Your task to perform on an android device: Search for "razer kraken" on ebay.com, select the first entry, add it to the cart, then select checkout. Image 0: 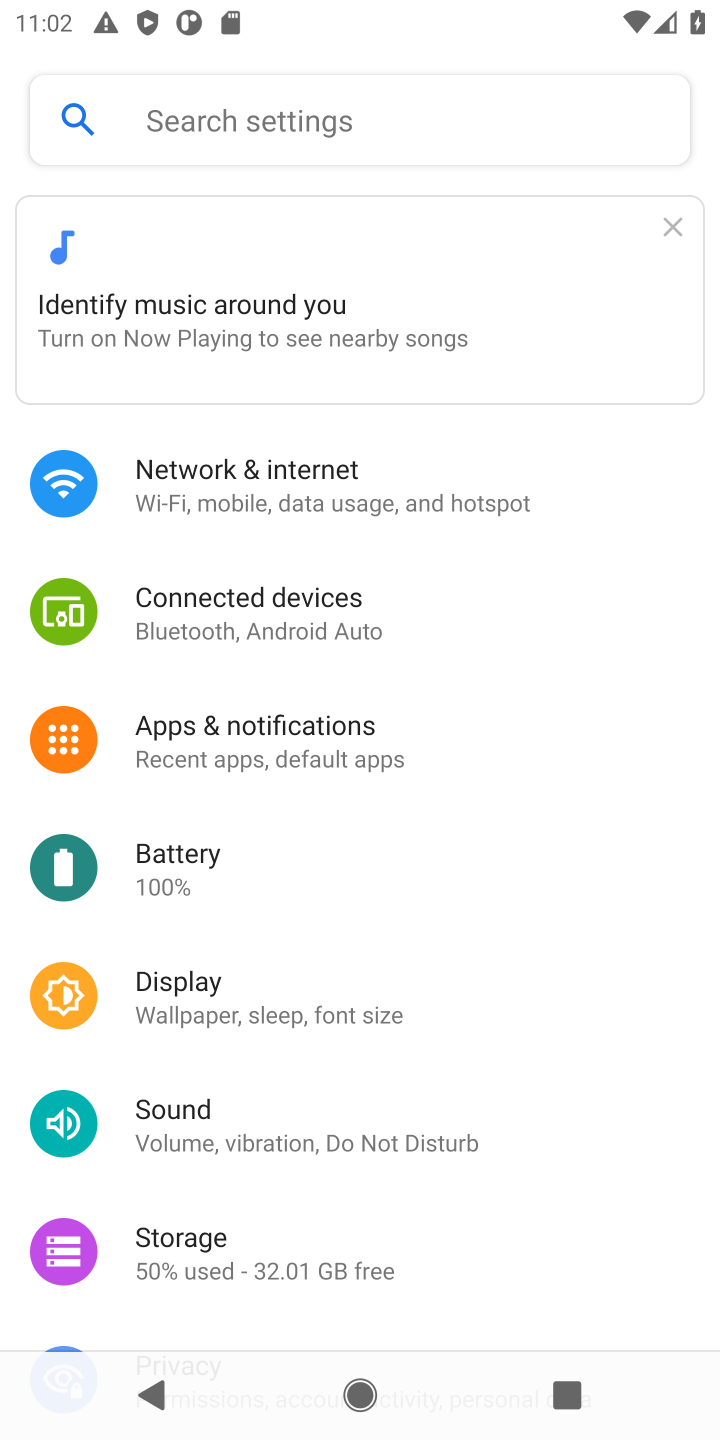
Step 0: press home button
Your task to perform on an android device: Search for "razer kraken" on ebay.com, select the first entry, add it to the cart, then select checkout. Image 1: 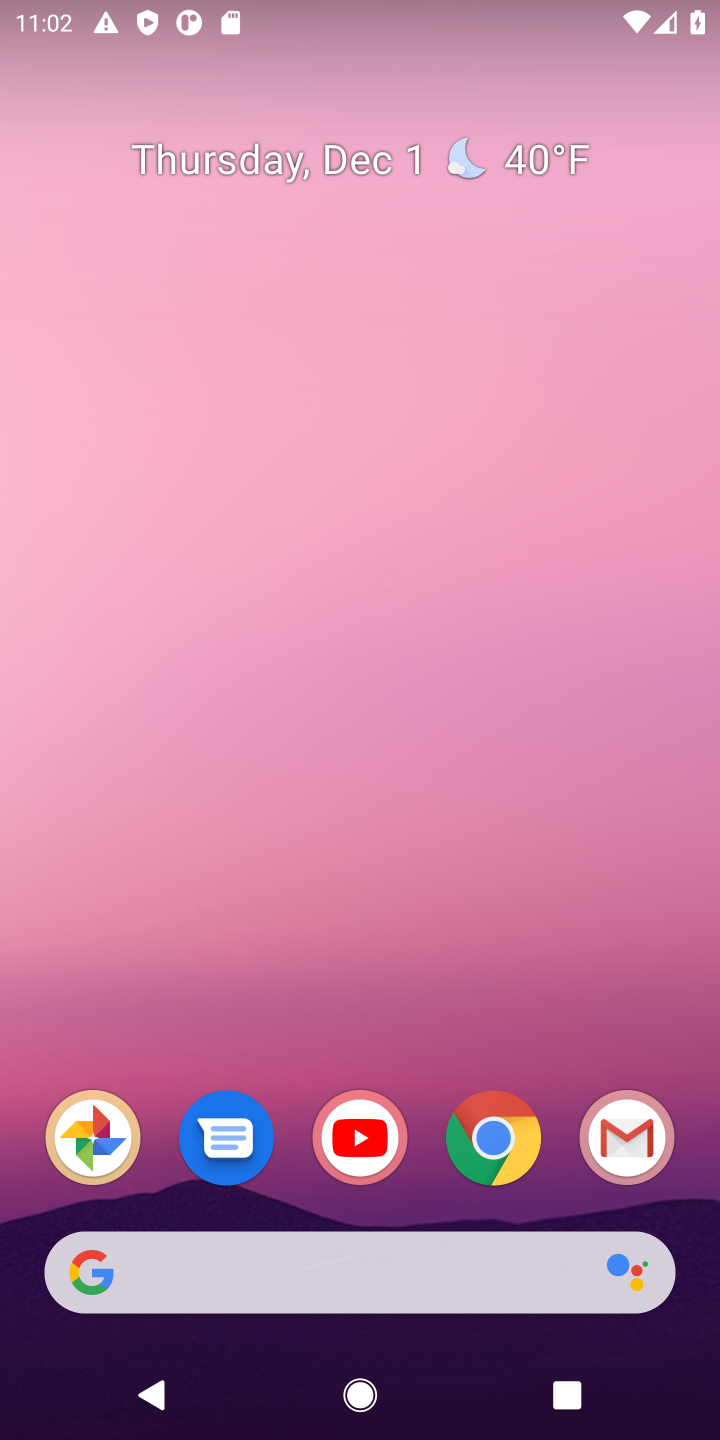
Step 1: click (505, 1138)
Your task to perform on an android device: Search for "razer kraken" on ebay.com, select the first entry, add it to the cart, then select checkout. Image 2: 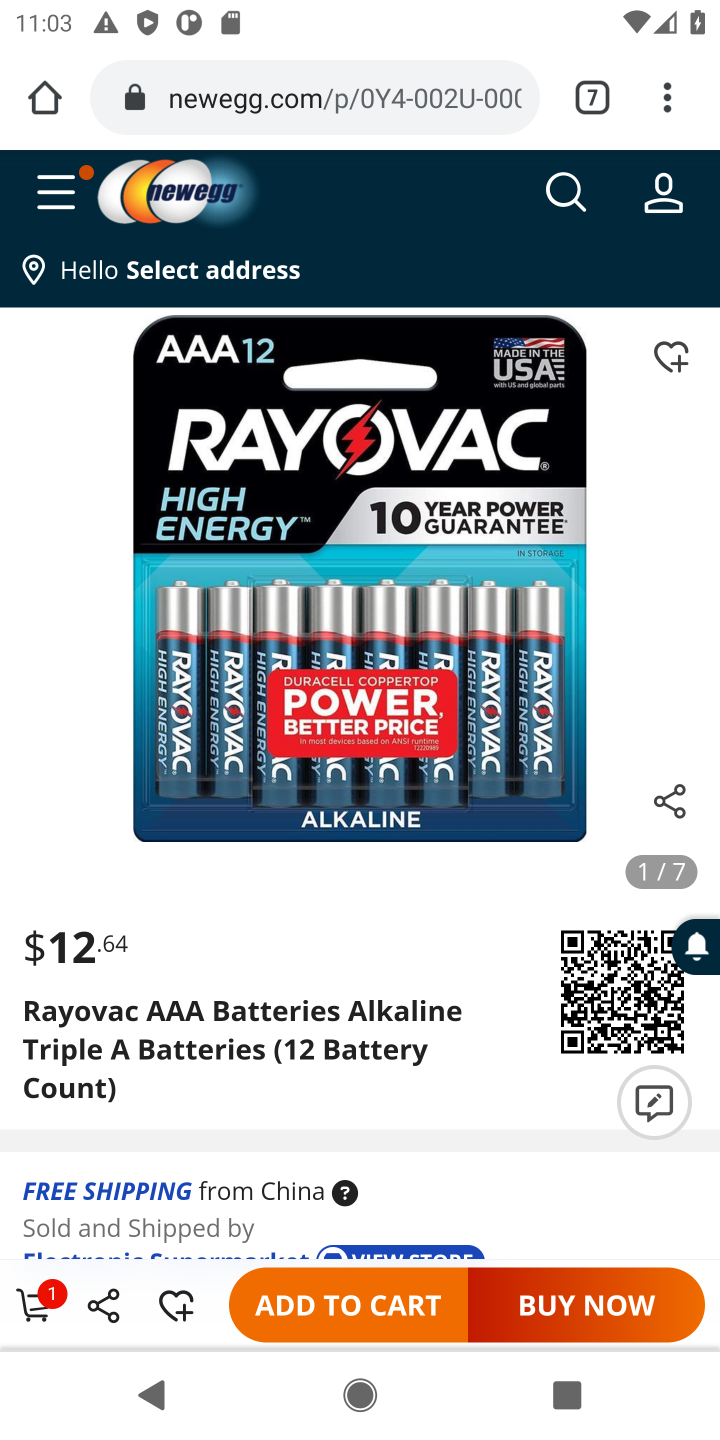
Step 2: click (318, 94)
Your task to perform on an android device: Search for "razer kraken" on ebay.com, select the first entry, add it to the cart, then select checkout. Image 3: 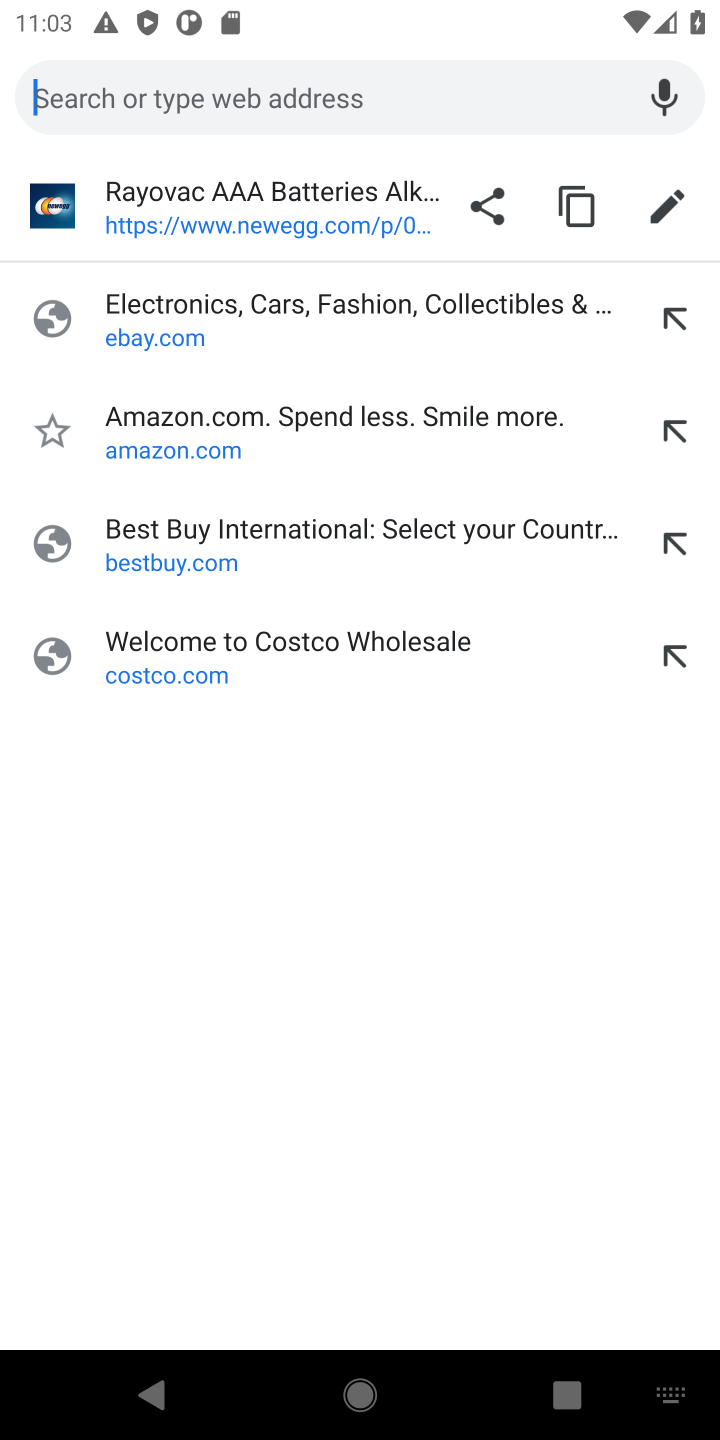
Step 3: type "ebay.com"
Your task to perform on an android device: Search for "razer kraken" on ebay.com, select the first entry, add it to the cart, then select checkout. Image 4: 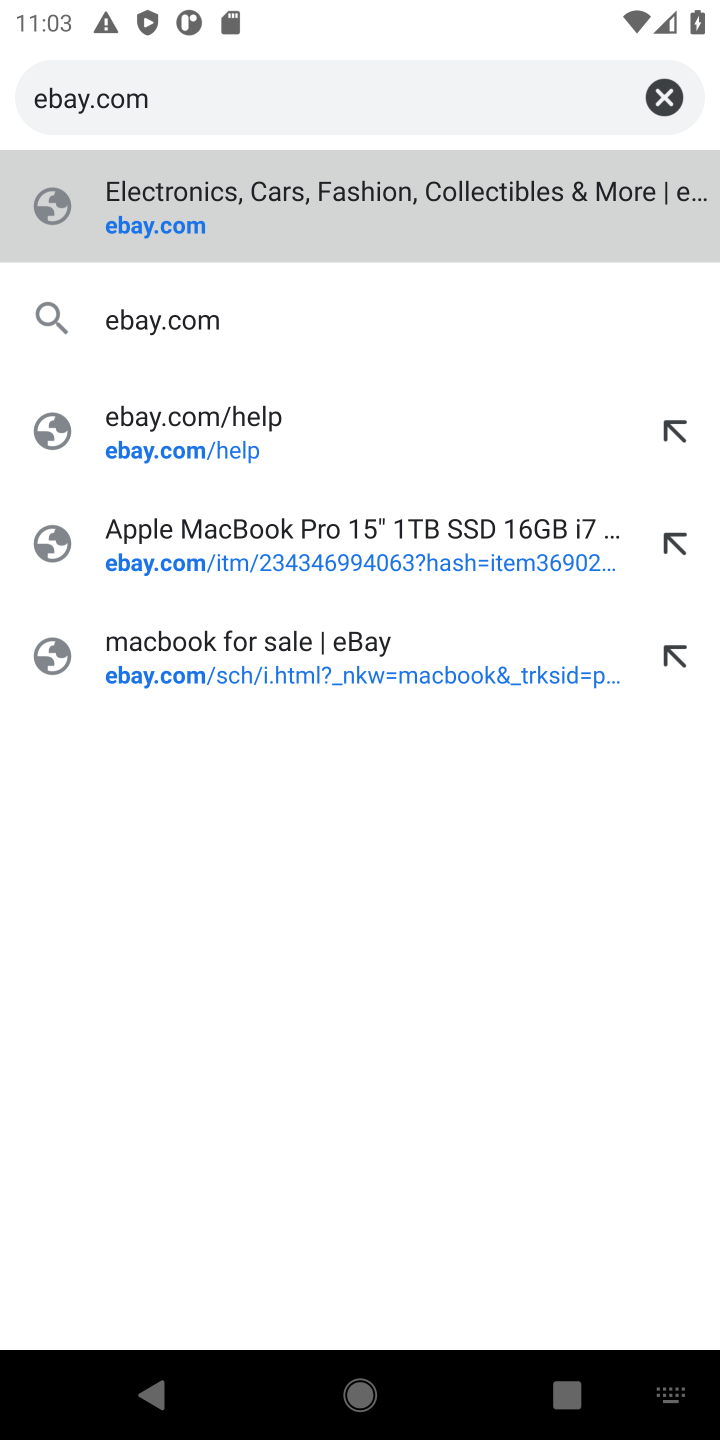
Step 4: click (548, 195)
Your task to perform on an android device: Search for "razer kraken" on ebay.com, select the first entry, add it to the cart, then select checkout. Image 5: 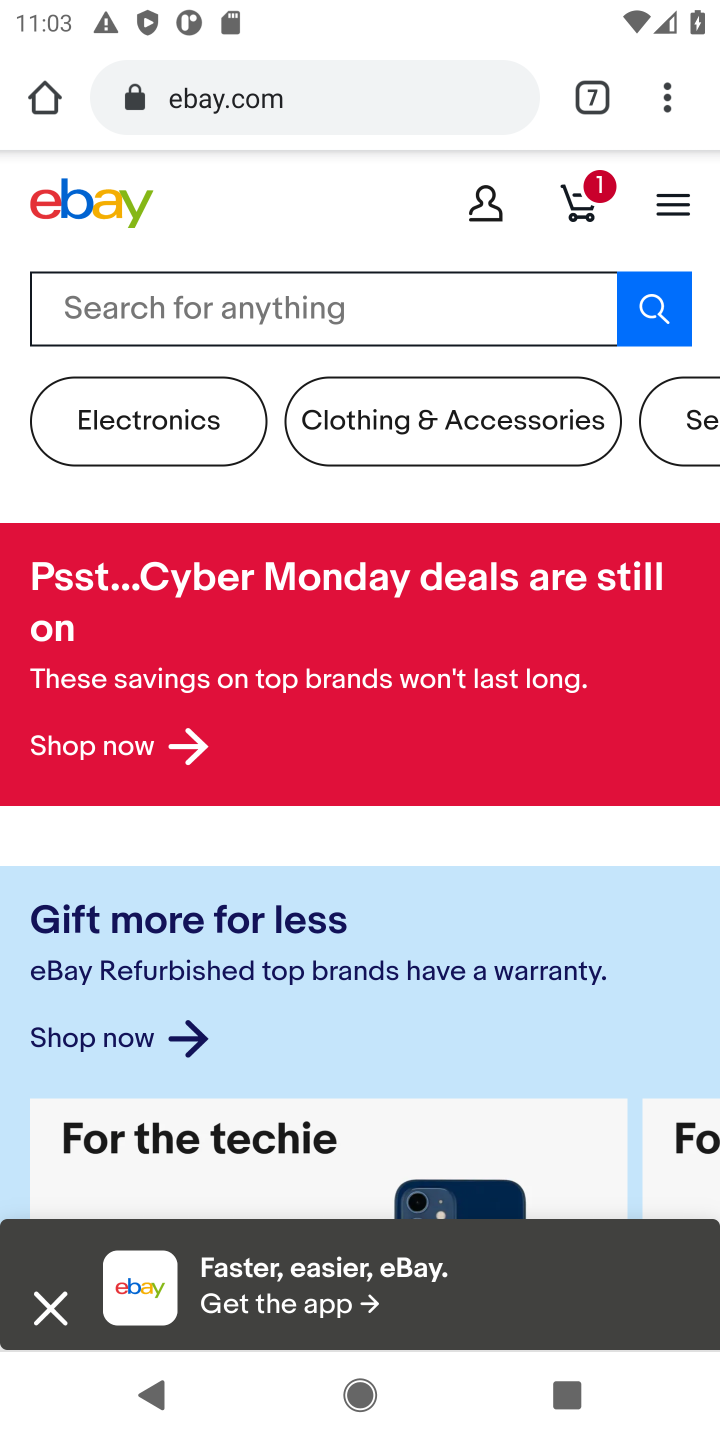
Step 5: click (356, 330)
Your task to perform on an android device: Search for "razer kraken" on ebay.com, select the first entry, add it to the cart, then select checkout. Image 6: 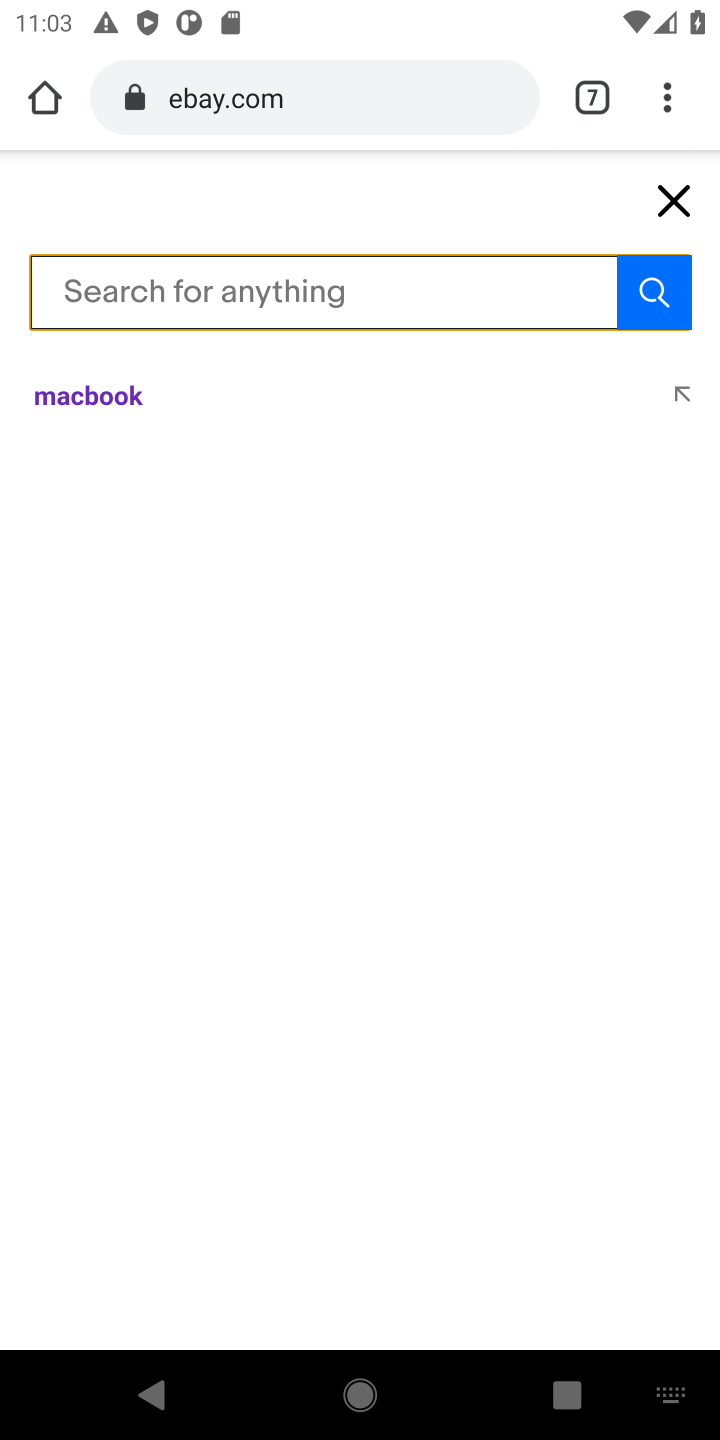
Step 6: type "razer kraken"
Your task to perform on an android device: Search for "razer kraken" on ebay.com, select the first entry, add it to the cart, then select checkout. Image 7: 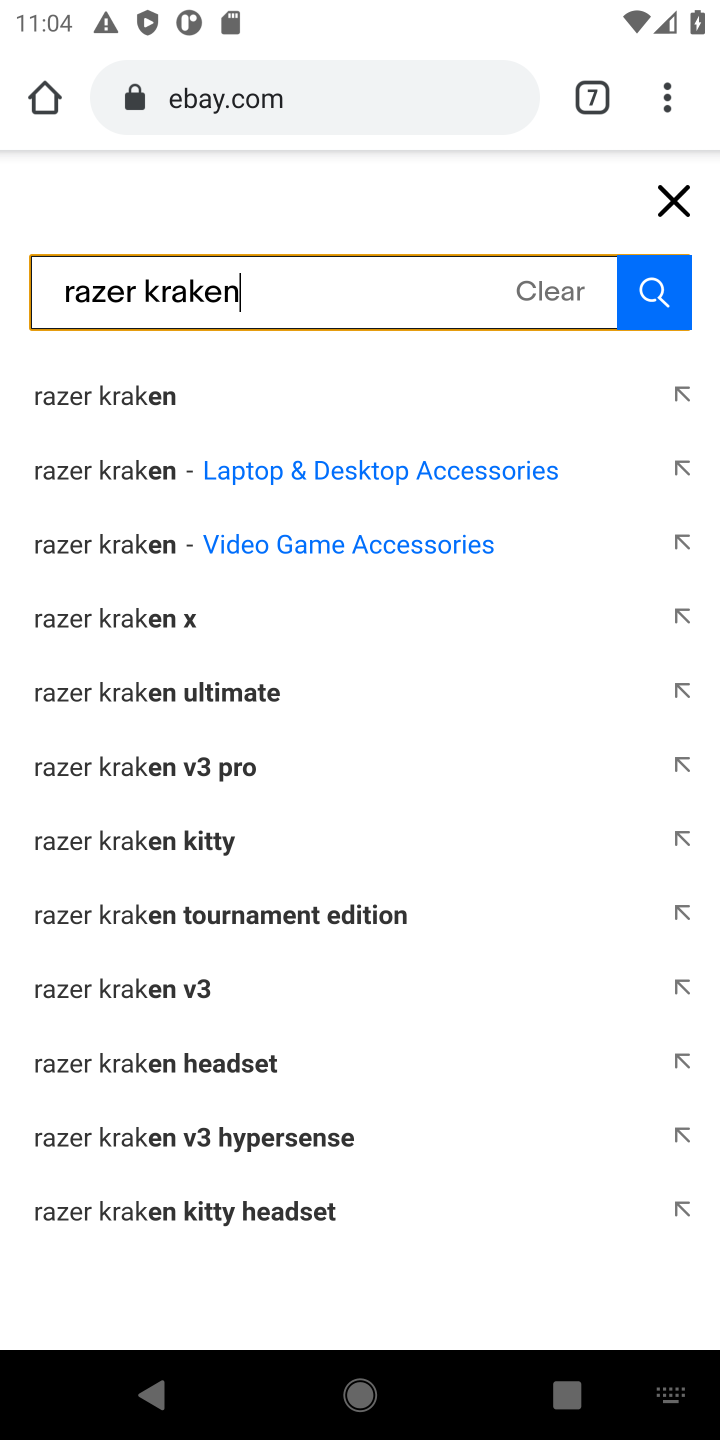
Step 7: click (250, 373)
Your task to perform on an android device: Search for "razer kraken" on ebay.com, select the first entry, add it to the cart, then select checkout. Image 8: 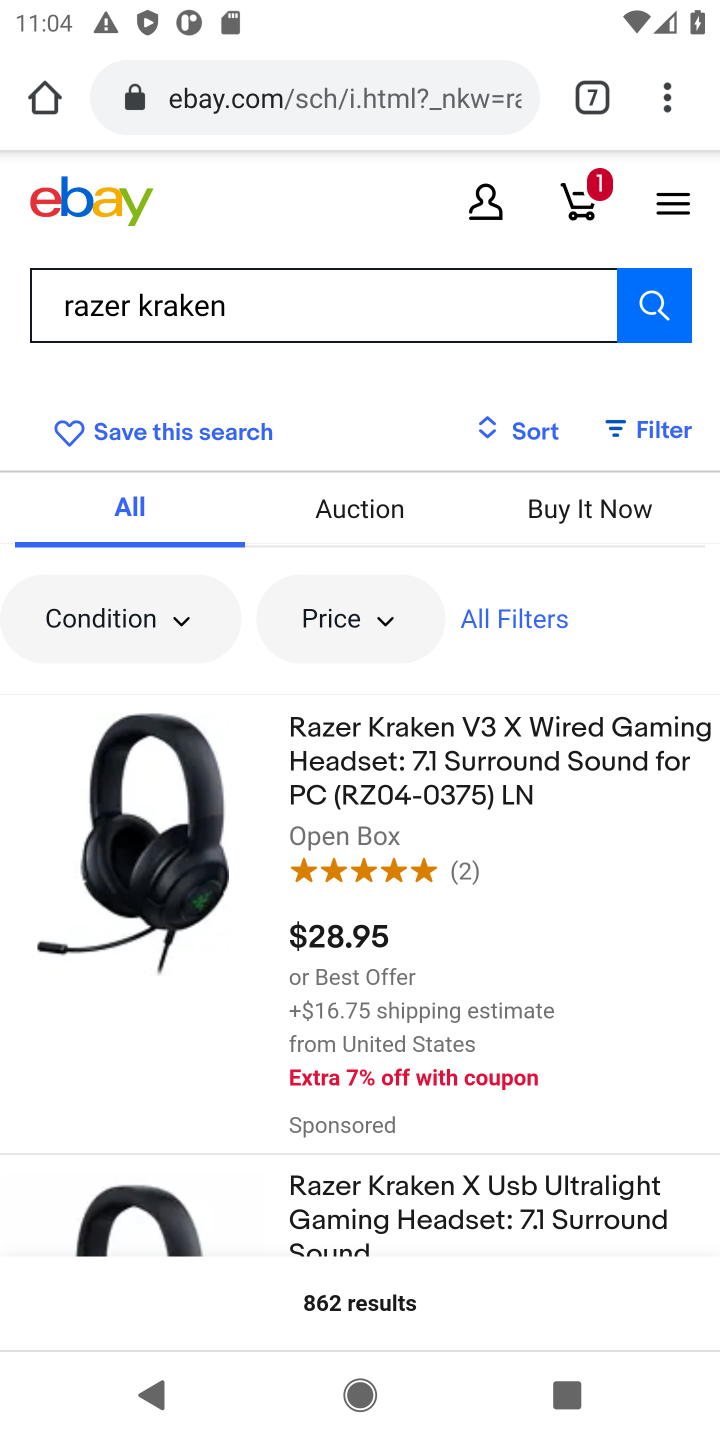
Step 8: click (355, 692)
Your task to perform on an android device: Search for "razer kraken" on ebay.com, select the first entry, add it to the cart, then select checkout. Image 9: 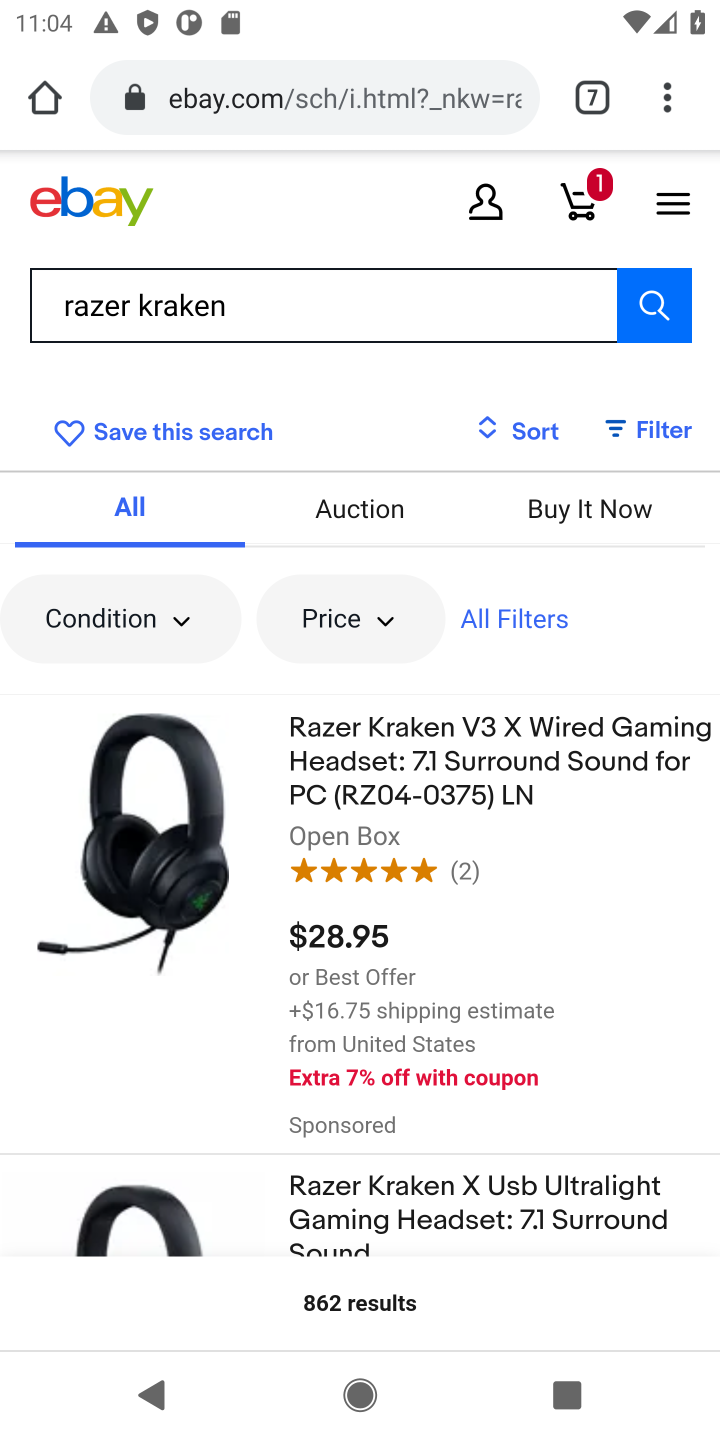
Step 9: click (345, 727)
Your task to perform on an android device: Search for "razer kraken" on ebay.com, select the first entry, add it to the cart, then select checkout. Image 10: 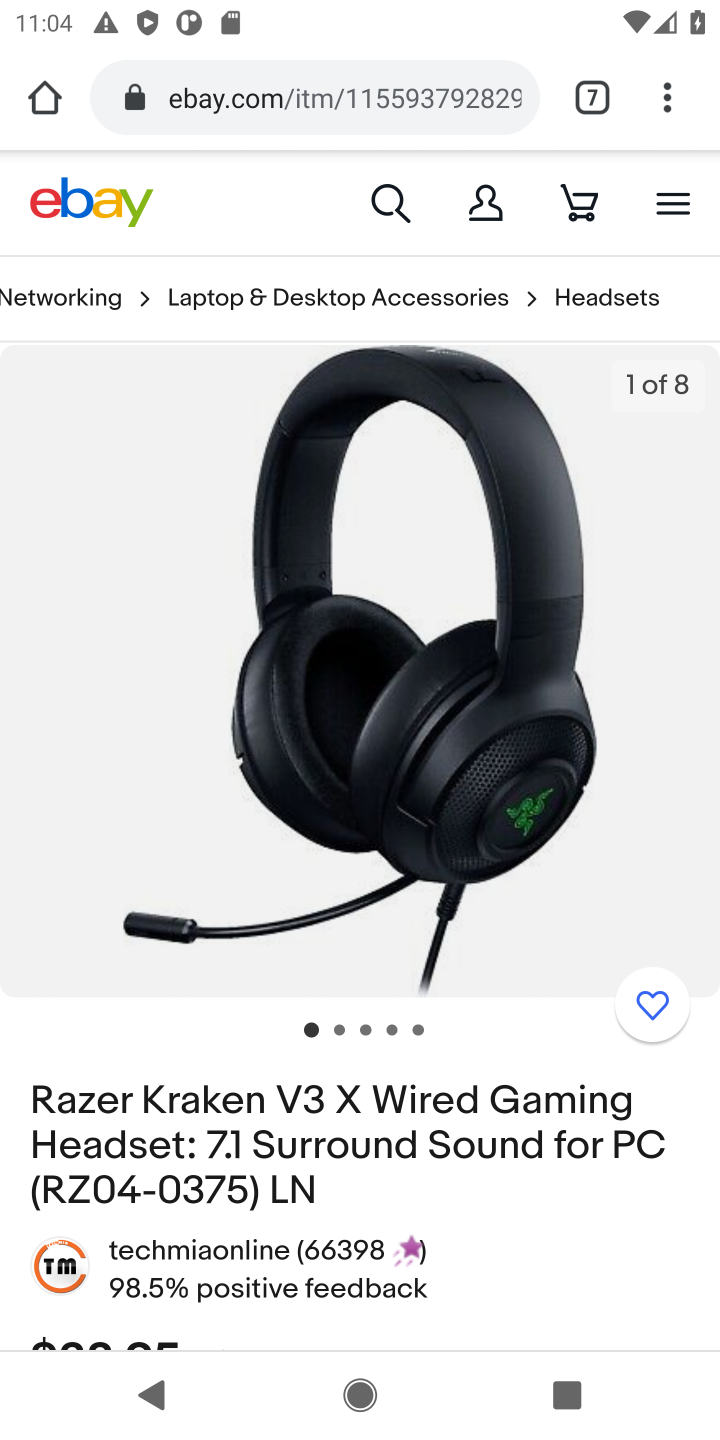
Step 10: drag from (439, 1089) to (530, 547)
Your task to perform on an android device: Search for "razer kraken" on ebay.com, select the first entry, add it to the cart, then select checkout. Image 11: 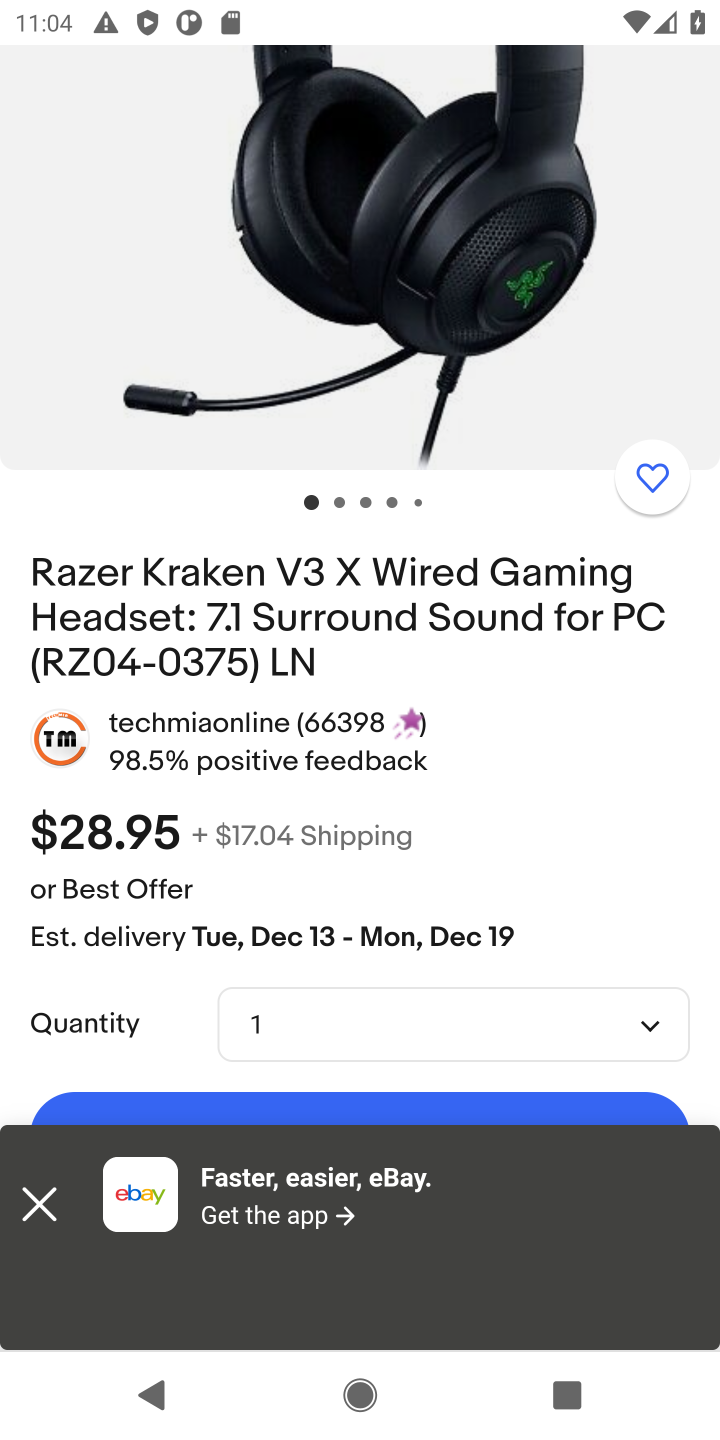
Step 11: click (40, 1210)
Your task to perform on an android device: Search for "razer kraken" on ebay.com, select the first entry, add it to the cart, then select checkout. Image 12: 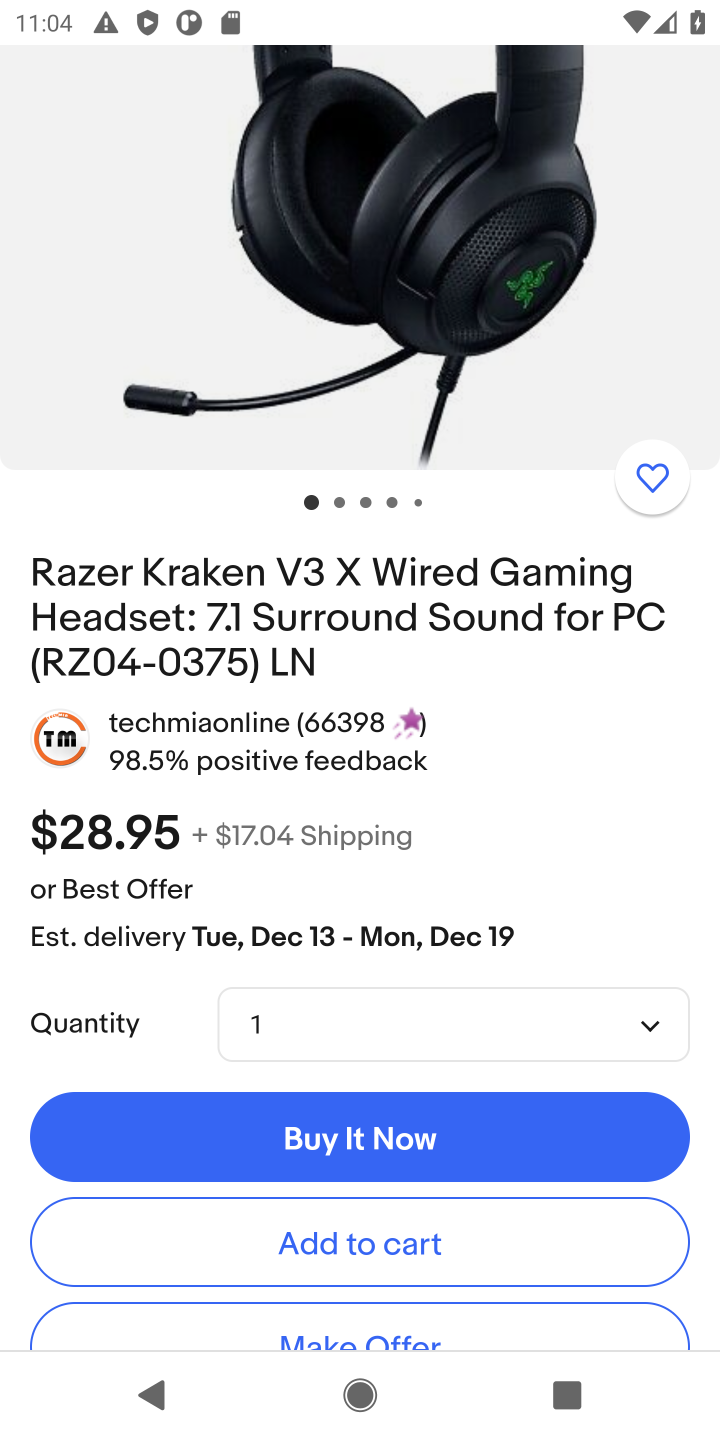
Step 12: click (255, 1249)
Your task to perform on an android device: Search for "razer kraken" on ebay.com, select the first entry, add it to the cart, then select checkout. Image 13: 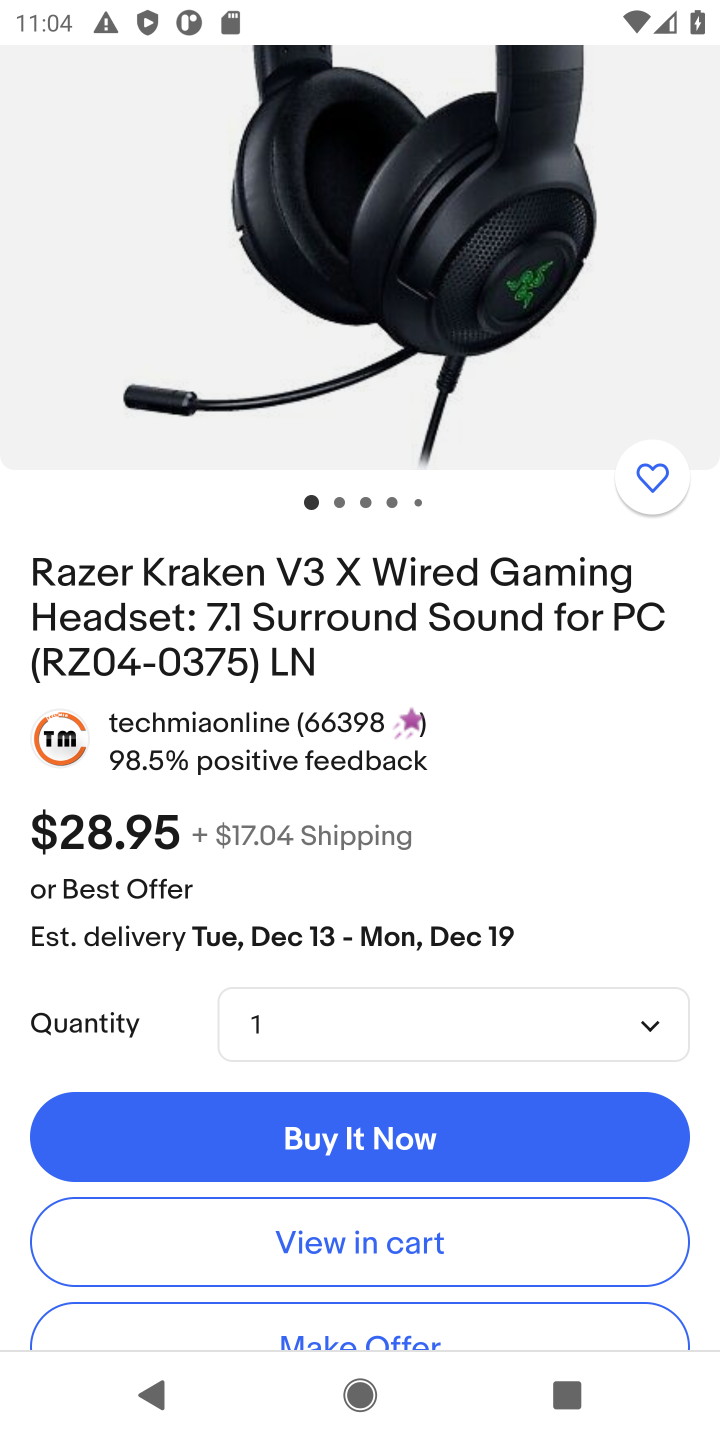
Step 13: click (418, 1234)
Your task to perform on an android device: Search for "razer kraken" on ebay.com, select the first entry, add it to the cart, then select checkout. Image 14: 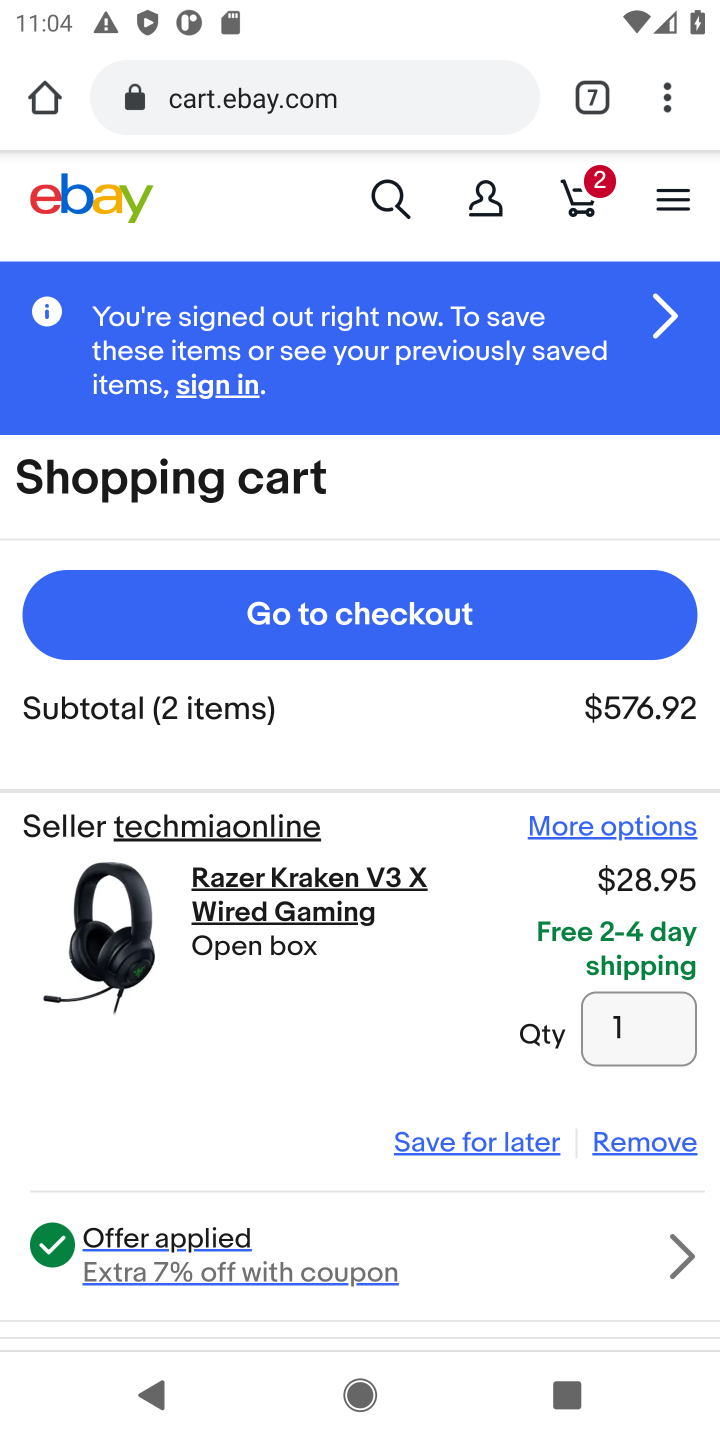
Step 14: click (457, 638)
Your task to perform on an android device: Search for "razer kraken" on ebay.com, select the first entry, add it to the cart, then select checkout. Image 15: 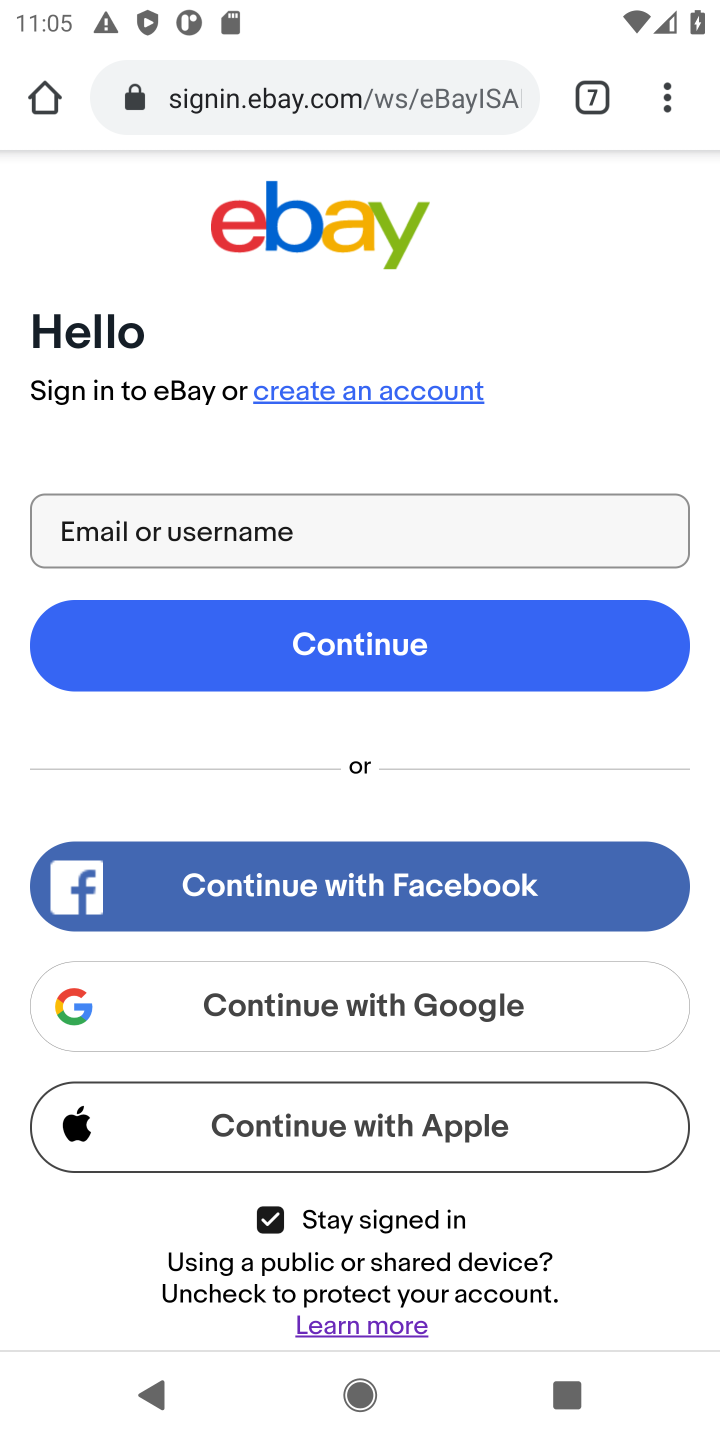
Step 15: task complete